Your task to perform on an android device: Go to notification settings Image 0: 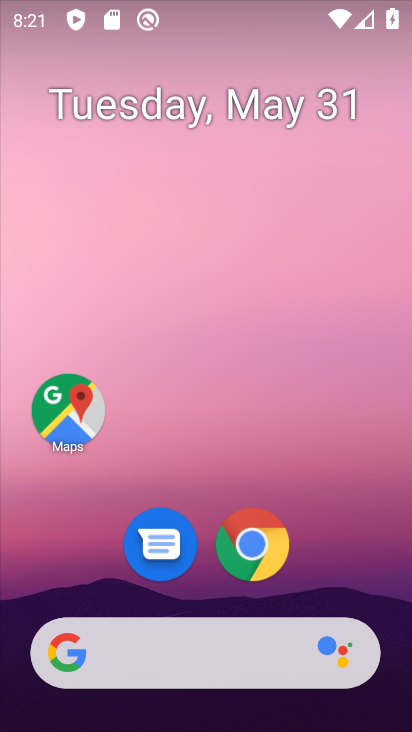
Step 0: drag from (237, 641) to (189, 144)
Your task to perform on an android device: Go to notification settings Image 1: 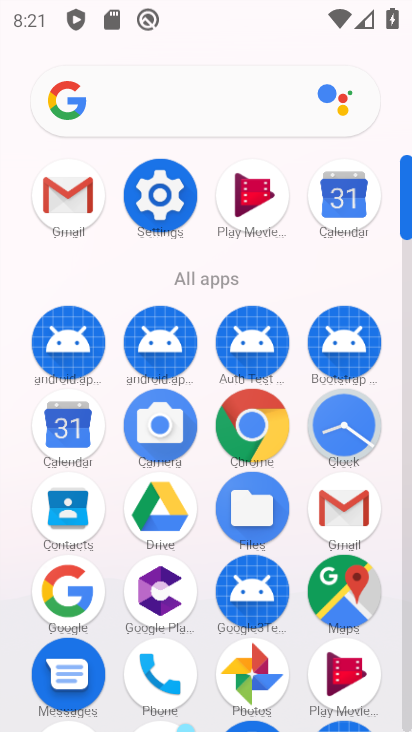
Step 1: click (136, 193)
Your task to perform on an android device: Go to notification settings Image 2: 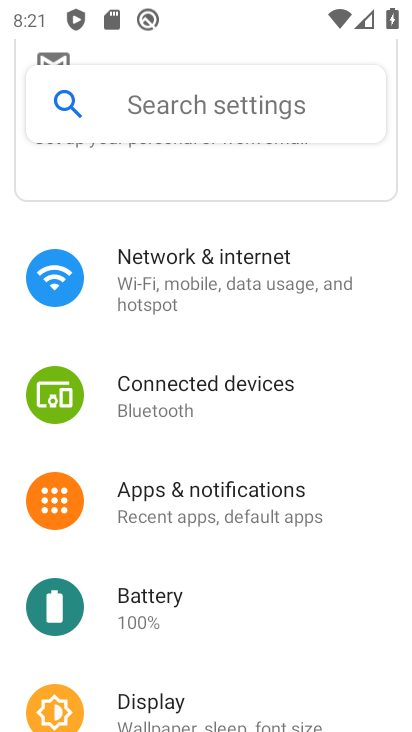
Step 2: click (190, 514)
Your task to perform on an android device: Go to notification settings Image 3: 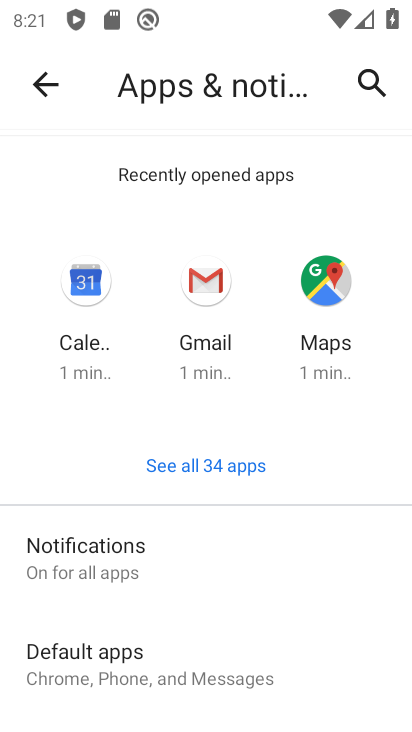
Step 3: task complete